Your task to perform on an android device: Turn off the flashlight Image 0: 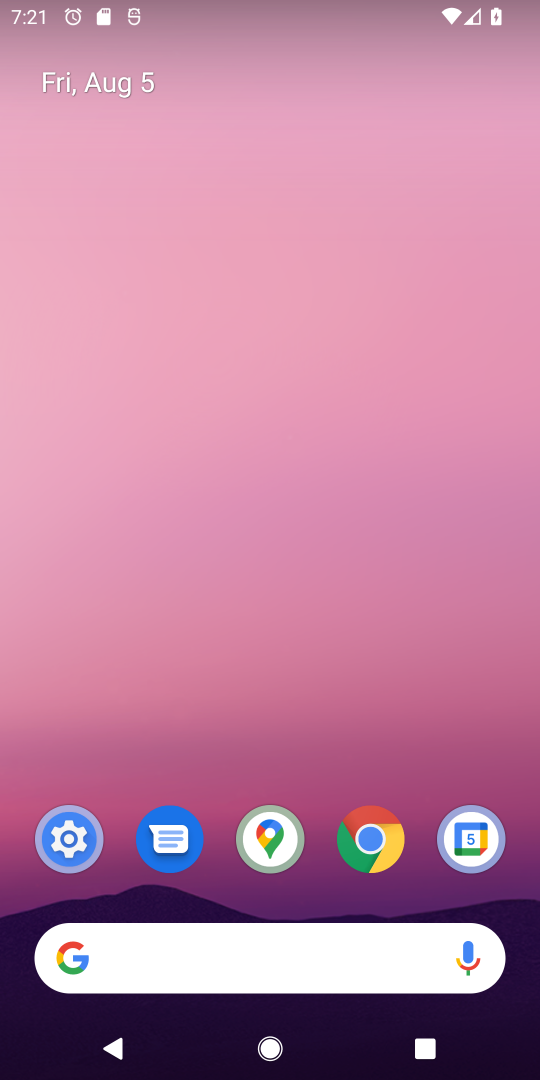
Step 0: click (77, 834)
Your task to perform on an android device: Turn off the flashlight Image 1: 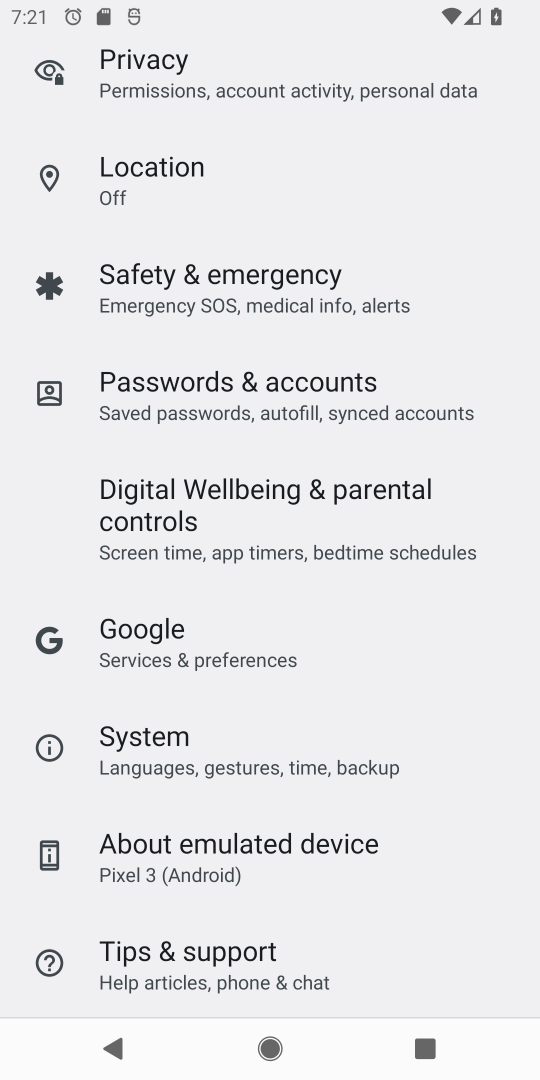
Step 1: task complete